Your task to perform on an android device: find photos in the google photos app Image 0: 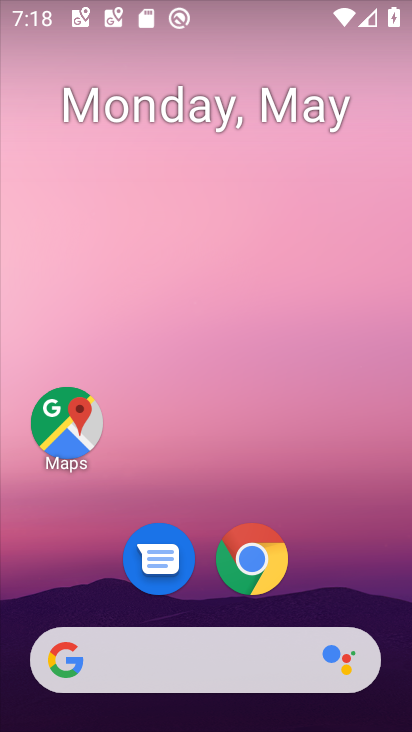
Step 0: drag from (389, 517) to (296, 8)
Your task to perform on an android device: find photos in the google photos app Image 1: 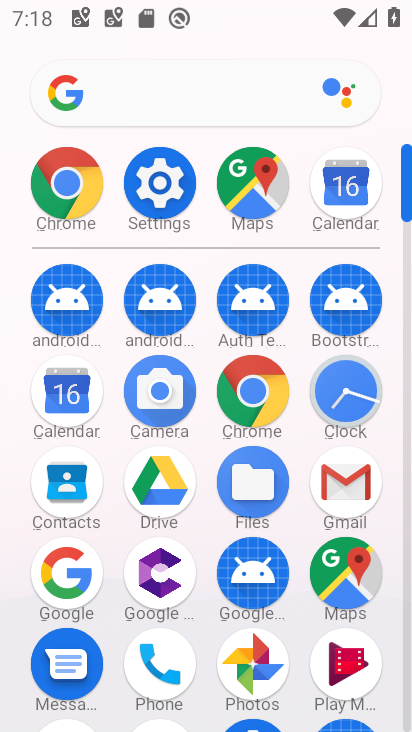
Step 1: click (262, 648)
Your task to perform on an android device: find photos in the google photos app Image 2: 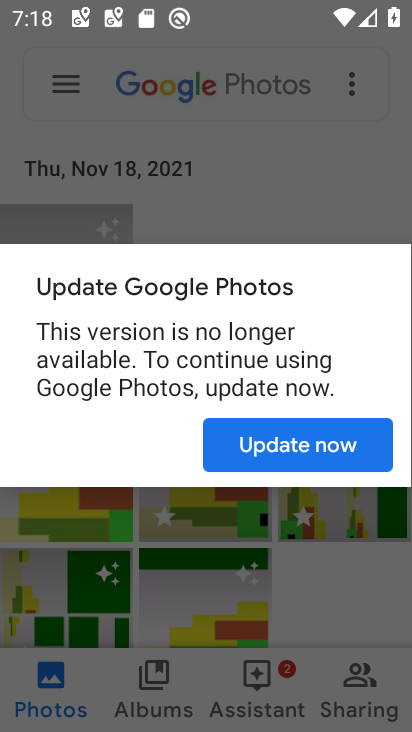
Step 2: click (329, 438)
Your task to perform on an android device: find photos in the google photos app Image 3: 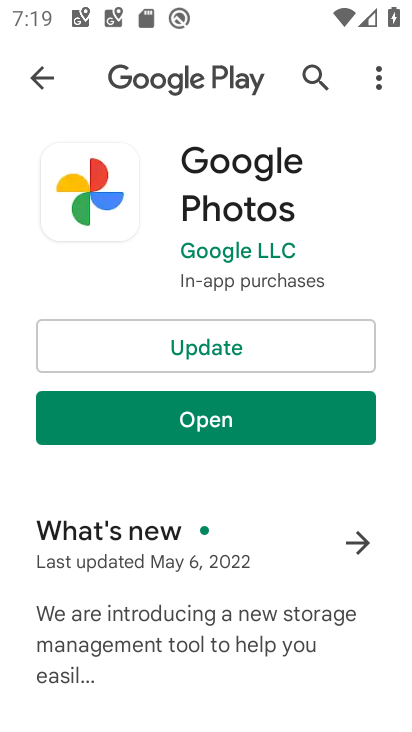
Step 3: click (182, 356)
Your task to perform on an android device: find photos in the google photos app Image 4: 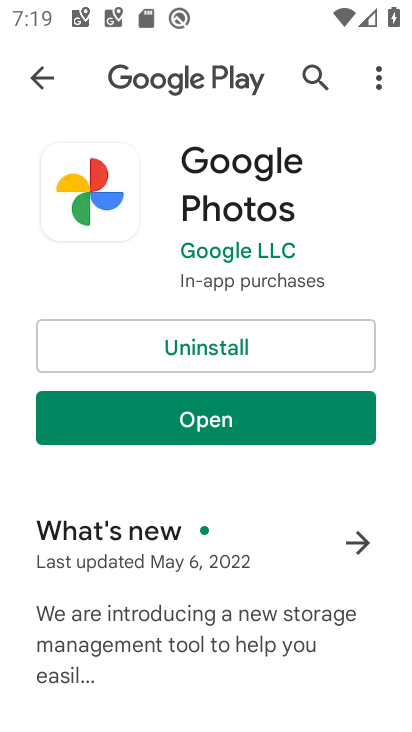
Step 4: click (203, 434)
Your task to perform on an android device: find photos in the google photos app Image 5: 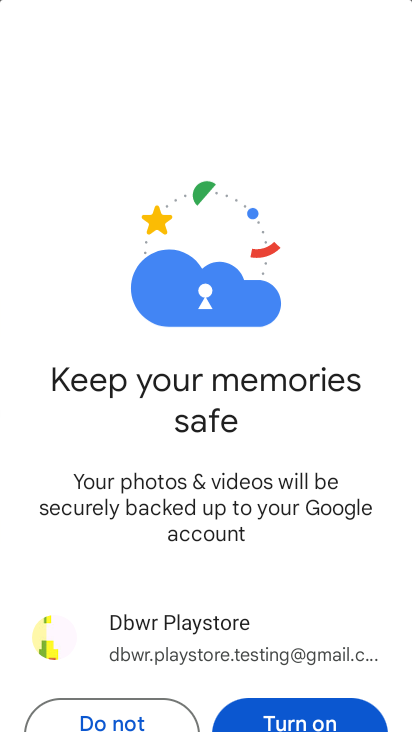
Step 5: task complete